Your task to perform on an android device: Open Reddit.com Image 0: 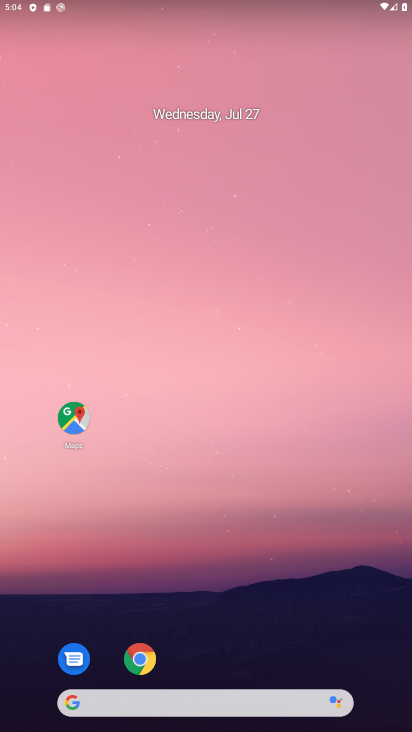
Step 0: click (137, 658)
Your task to perform on an android device: Open Reddit.com Image 1: 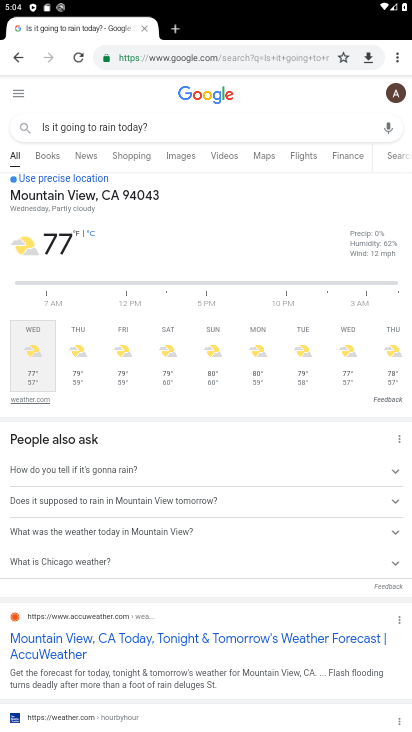
Step 1: click (131, 53)
Your task to perform on an android device: Open Reddit.com Image 2: 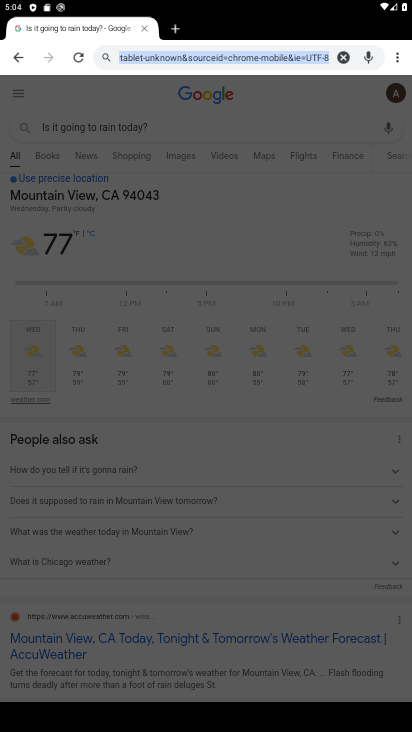
Step 2: type "Reddit.com"
Your task to perform on an android device: Open Reddit.com Image 3: 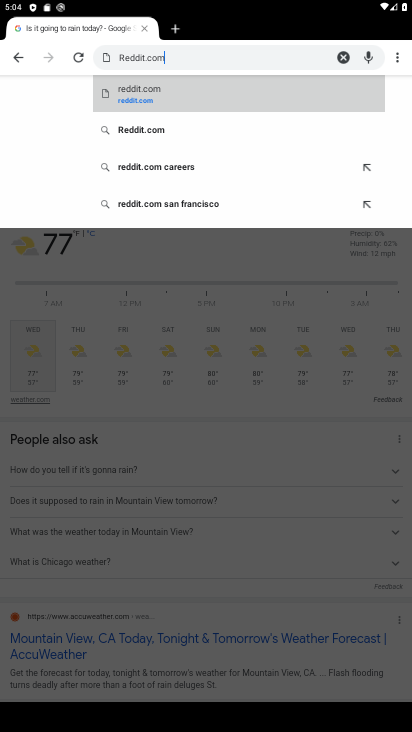
Step 3: click (139, 95)
Your task to perform on an android device: Open Reddit.com Image 4: 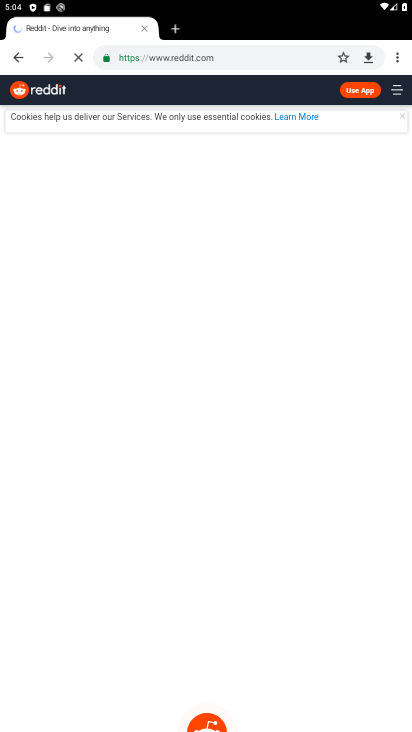
Step 4: task complete